Your task to perform on an android device: Go to Amazon Image 0: 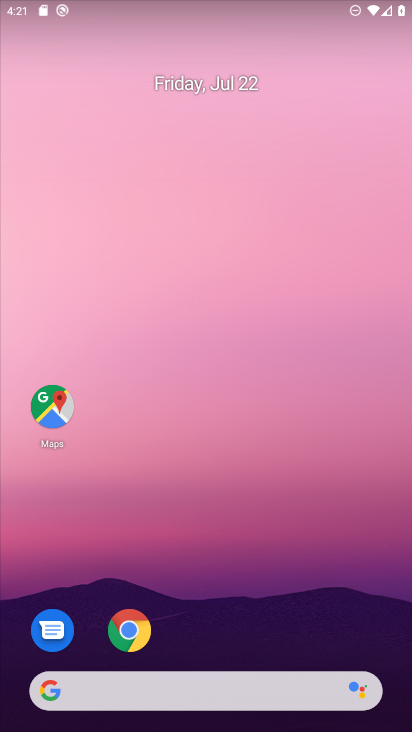
Step 0: click (139, 634)
Your task to perform on an android device: Go to Amazon Image 1: 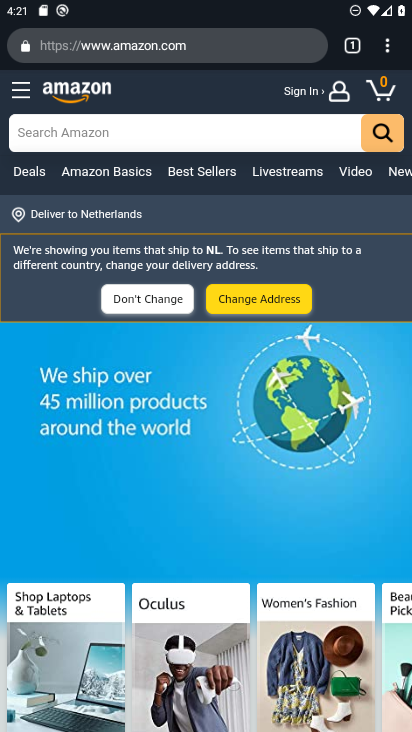
Step 1: click (77, 83)
Your task to perform on an android device: Go to Amazon Image 2: 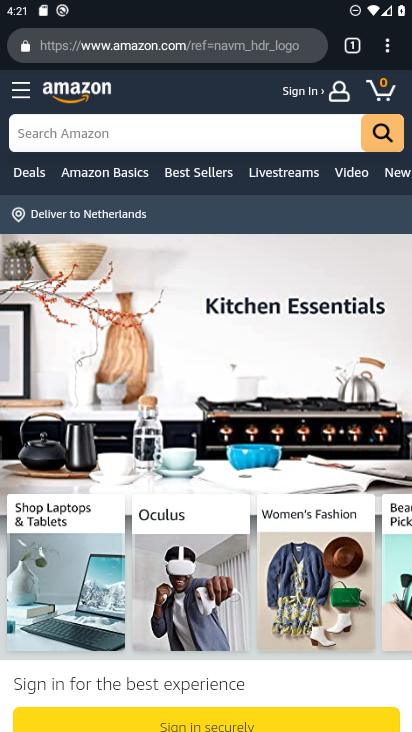
Step 2: task complete